Your task to perform on an android device: turn vacation reply on in the gmail app Image 0: 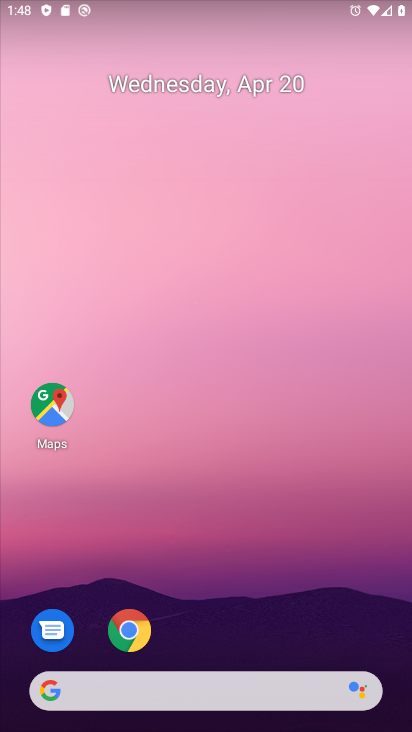
Step 0: drag from (168, 495) to (53, 88)
Your task to perform on an android device: turn vacation reply on in the gmail app Image 1: 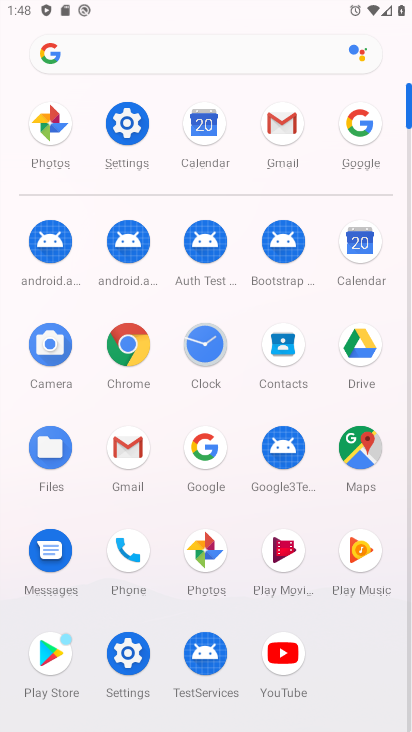
Step 1: click (130, 448)
Your task to perform on an android device: turn vacation reply on in the gmail app Image 2: 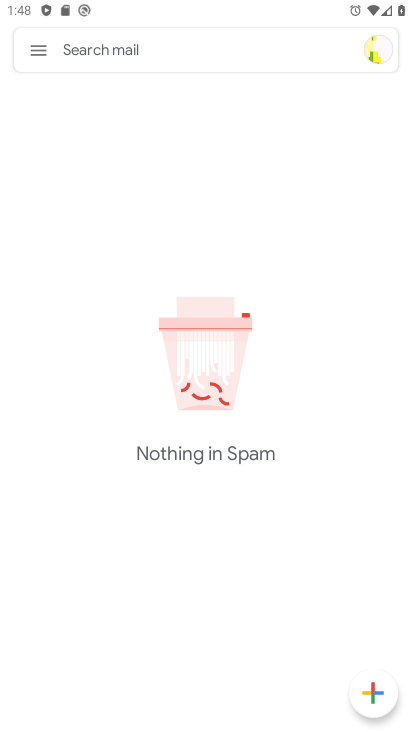
Step 2: click (35, 52)
Your task to perform on an android device: turn vacation reply on in the gmail app Image 3: 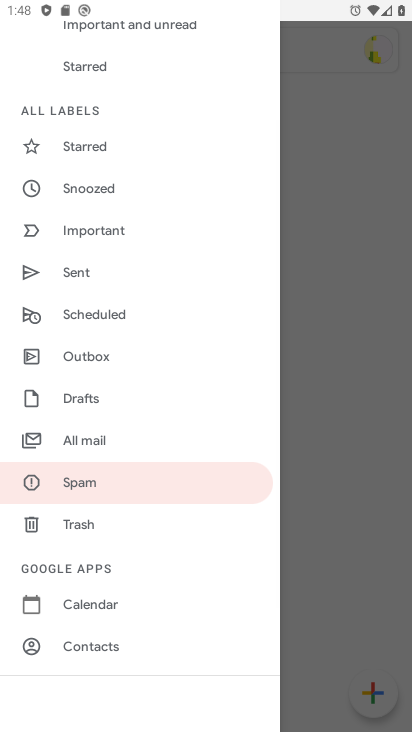
Step 3: drag from (76, 607) to (92, 442)
Your task to perform on an android device: turn vacation reply on in the gmail app Image 4: 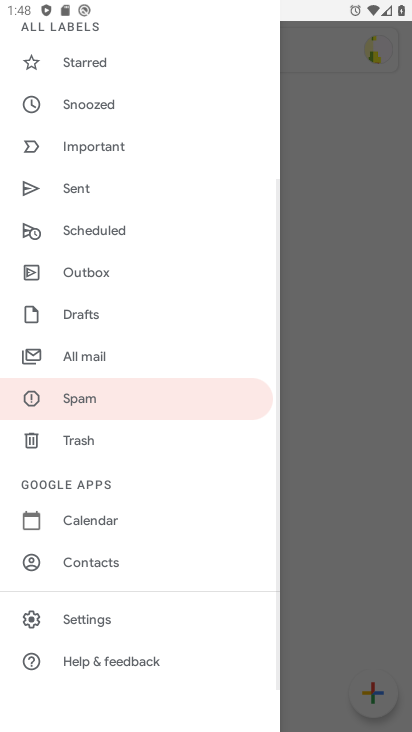
Step 4: click (84, 617)
Your task to perform on an android device: turn vacation reply on in the gmail app Image 5: 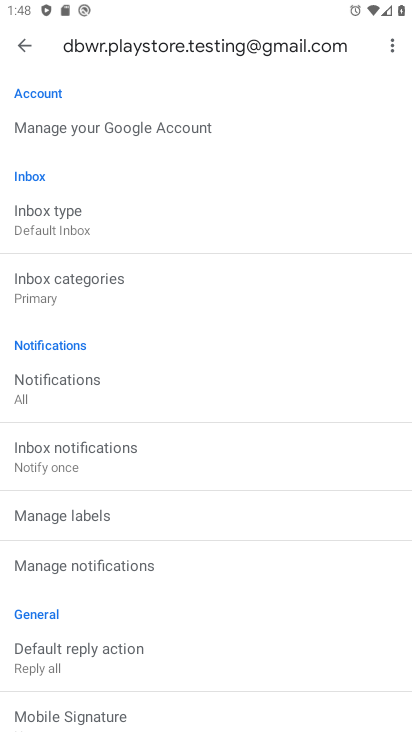
Step 5: drag from (85, 670) to (74, 310)
Your task to perform on an android device: turn vacation reply on in the gmail app Image 6: 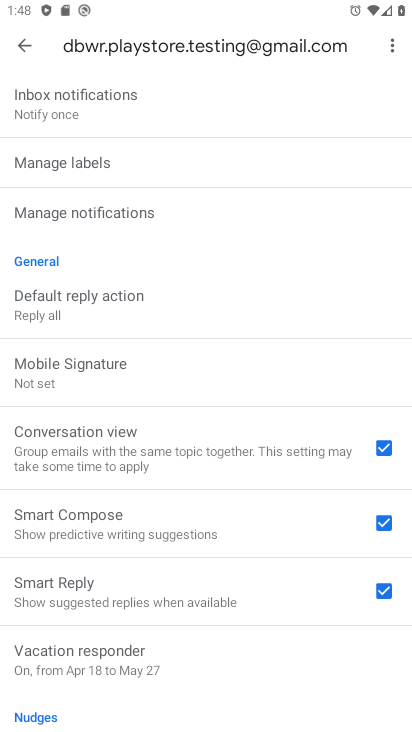
Step 6: click (90, 671)
Your task to perform on an android device: turn vacation reply on in the gmail app Image 7: 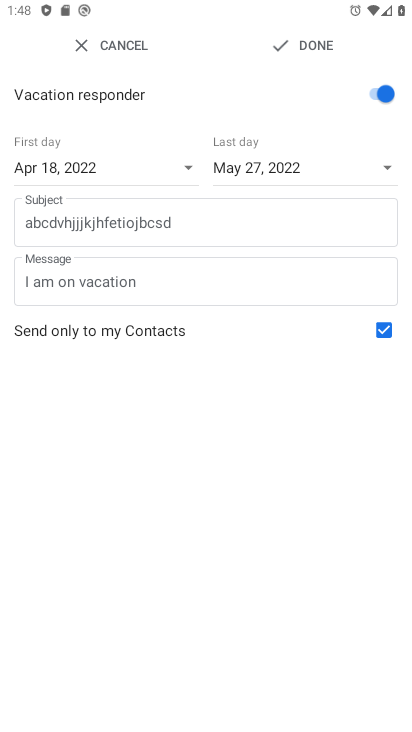
Step 7: task complete